Your task to perform on an android device: Is it going to rain tomorrow? Image 0: 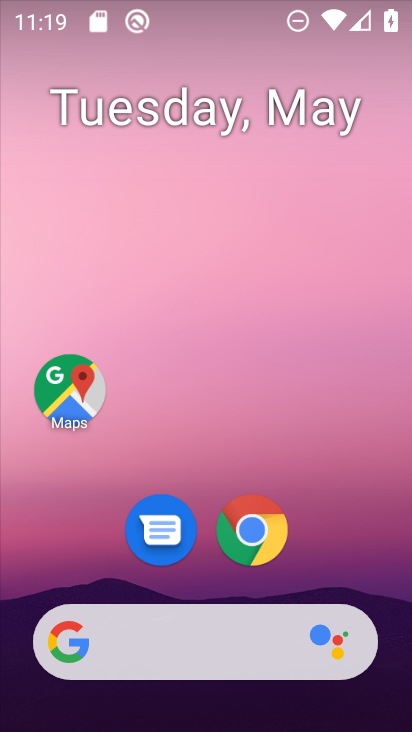
Step 0: drag from (311, 577) to (336, 136)
Your task to perform on an android device: Is it going to rain tomorrow? Image 1: 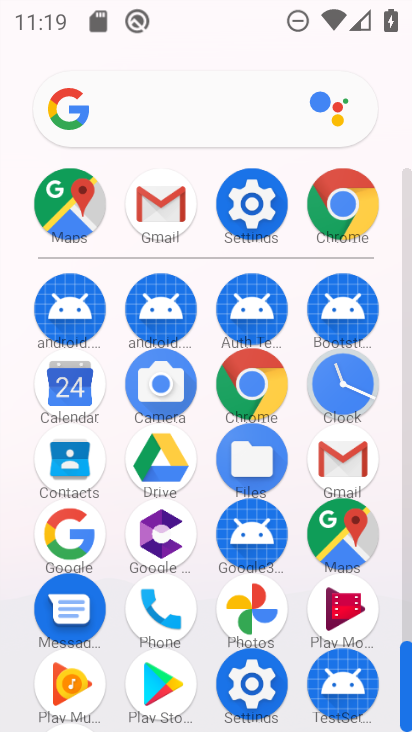
Step 1: click (241, 388)
Your task to perform on an android device: Is it going to rain tomorrow? Image 2: 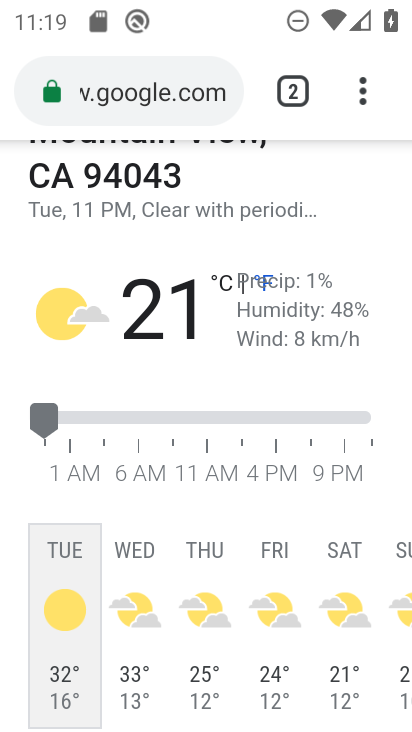
Step 2: drag from (236, 436) to (273, 201)
Your task to perform on an android device: Is it going to rain tomorrow? Image 3: 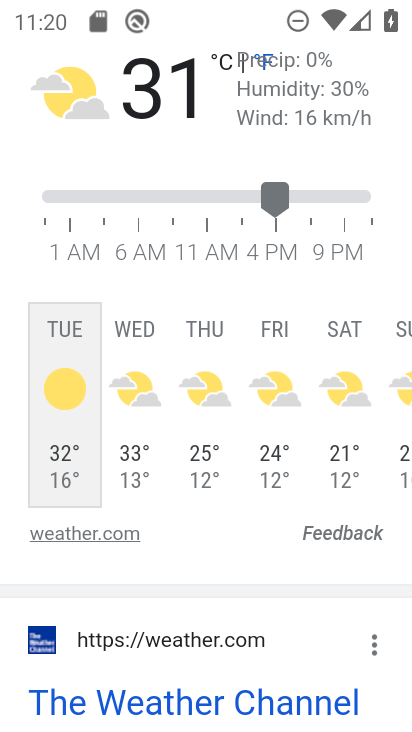
Step 3: click (153, 403)
Your task to perform on an android device: Is it going to rain tomorrow? Image 4: 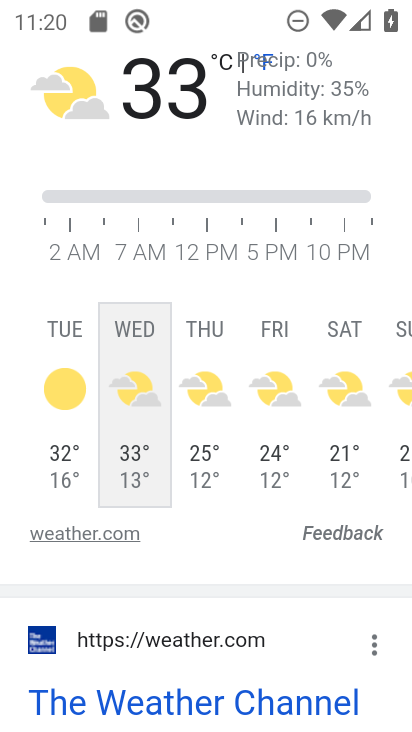
Step 4: task complete